Your task to perform on an android device: Search for vegetarian restaurants on Maps Image 0: 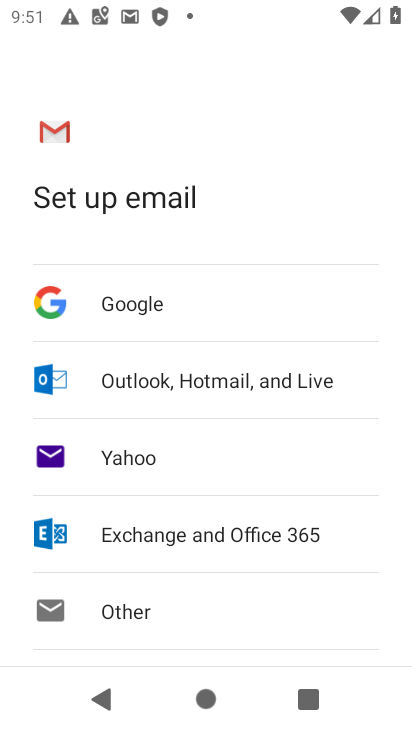
Step 0: press back button
Your task to perform on an android device: Search for vegetarian restaurants on Maps Image 1: 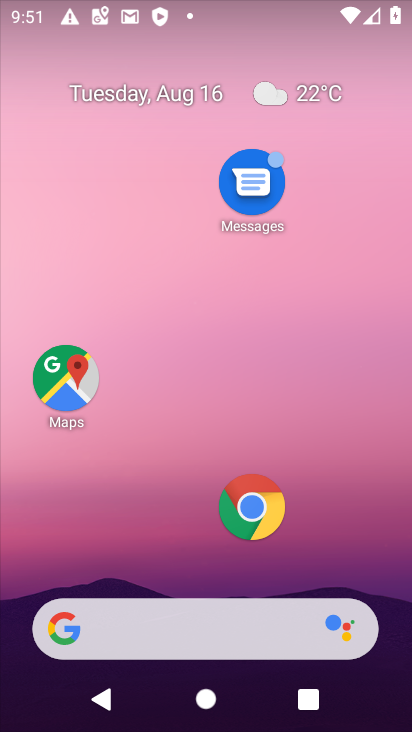
Step 1: click (70, 374)
Your task to perform on an android device: Search for vegetarian restaurants on Maps Image 2: 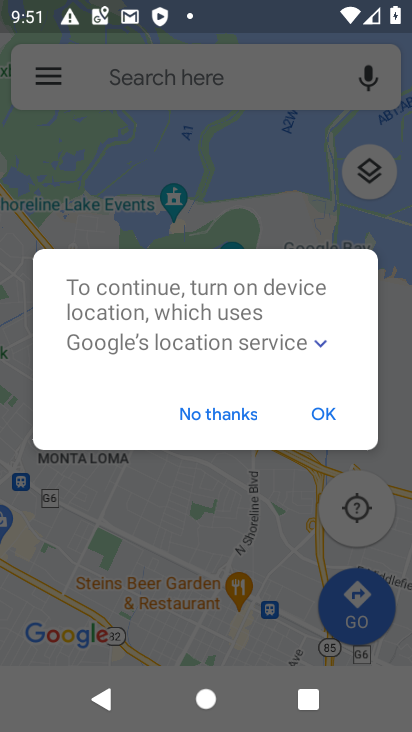
Step 2: click (330, 406)
Your task to perform on an android device: Search for vegetarian restaurants on Maps Image 3: 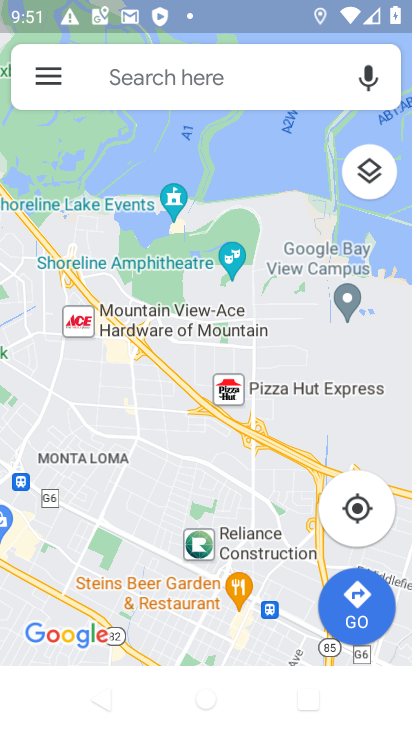
Step 3: click (156, 64)
Your task to perform on an android device: Search for vegetarian restaurants on Maps Image 4: 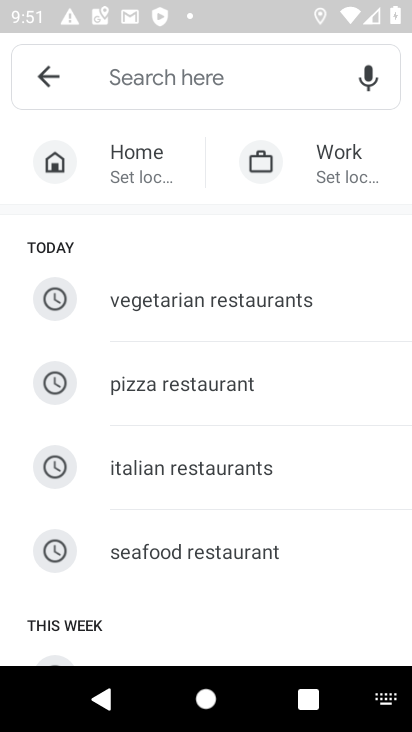
Step 4: click (169, 299)
Your task to perform on an android device: Search for vegetarian restaurants on Maps Image 5: 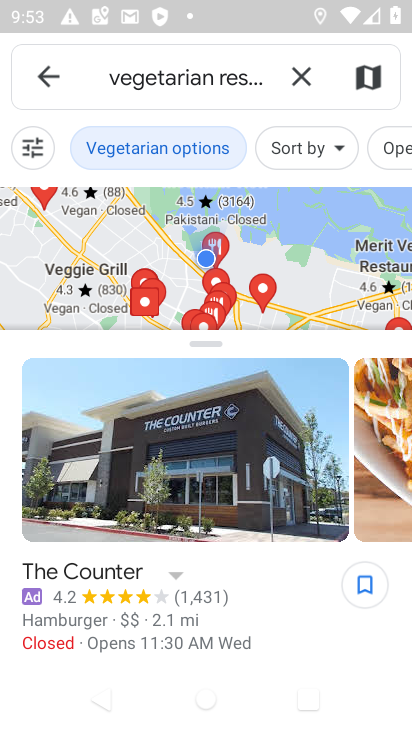
Step 5: task complete